Your task to perform on an android device: Search for "asus rog" on costco, select the first entry, add it to the cart, then select checkout. Image 0: 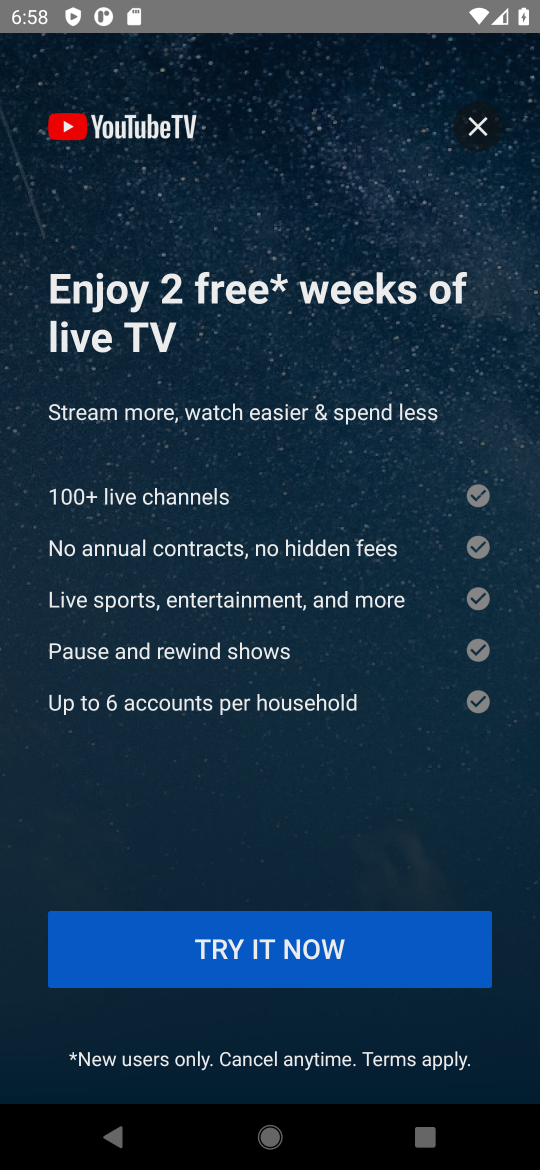
Step 0: press home button
Your task to perform on an android device: Search for "asus rog" on costco, select the first entry, add it to the cart, then select checkout. Image 1: 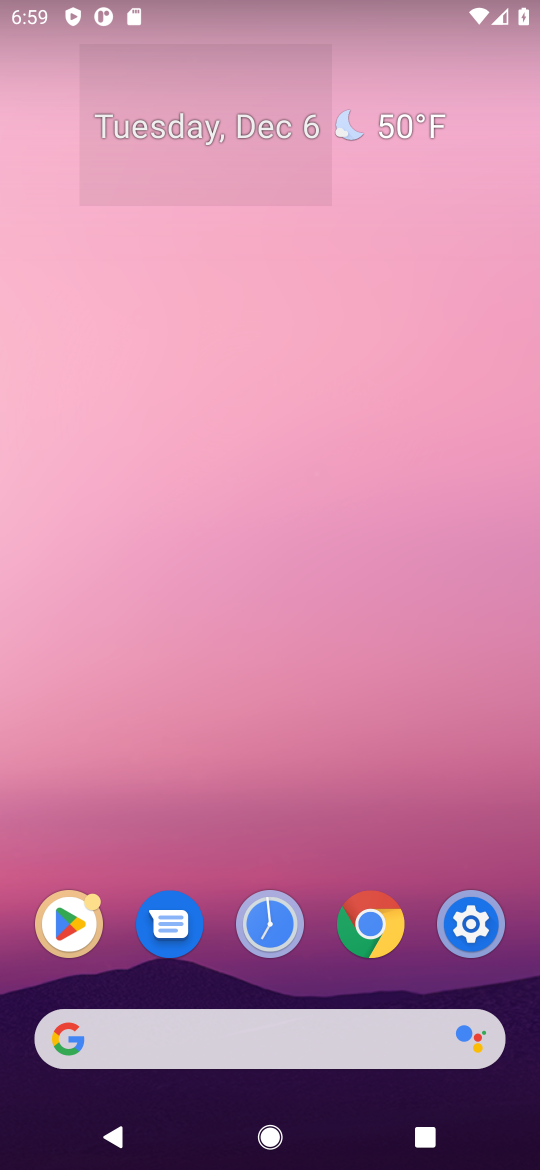
Step 1: click (262, 1025)
Your task to perform on an android device: Search for "asus rog" on costco, select the first entry, add it to the cart, then select checkout. Image 2: 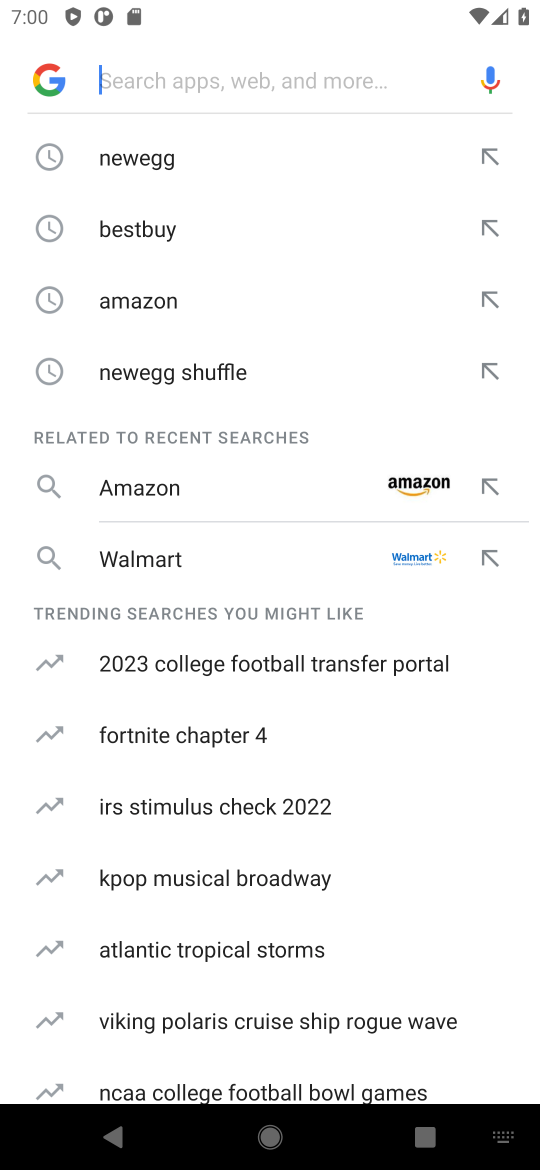
Step 2: task complete